Your task to perform on an android device: Open Reddit.com Image 0: 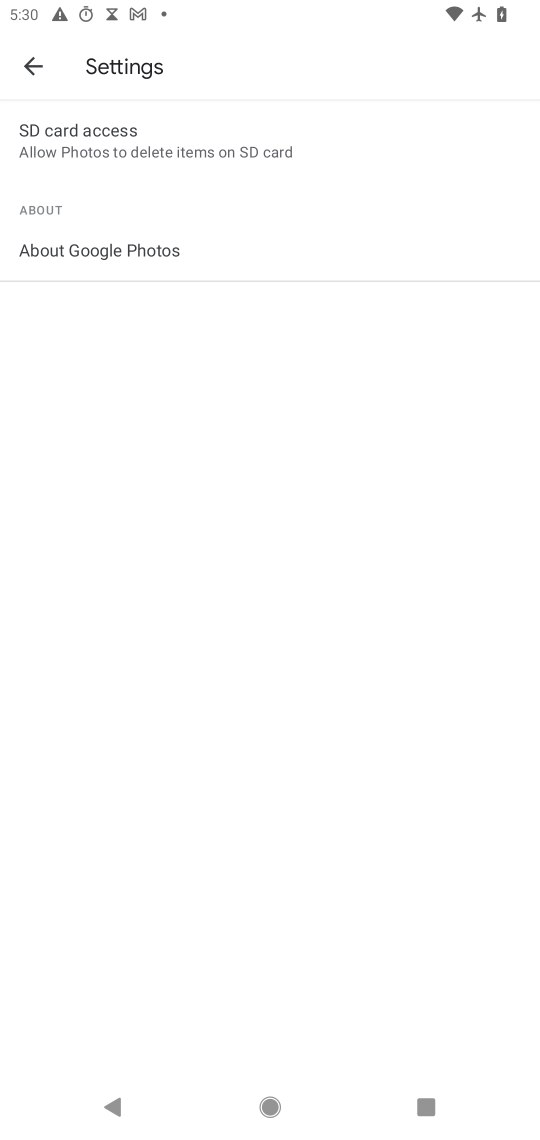
Step 0: press home button
Your task to perform on an android device: Open Reddit.com Image 1: 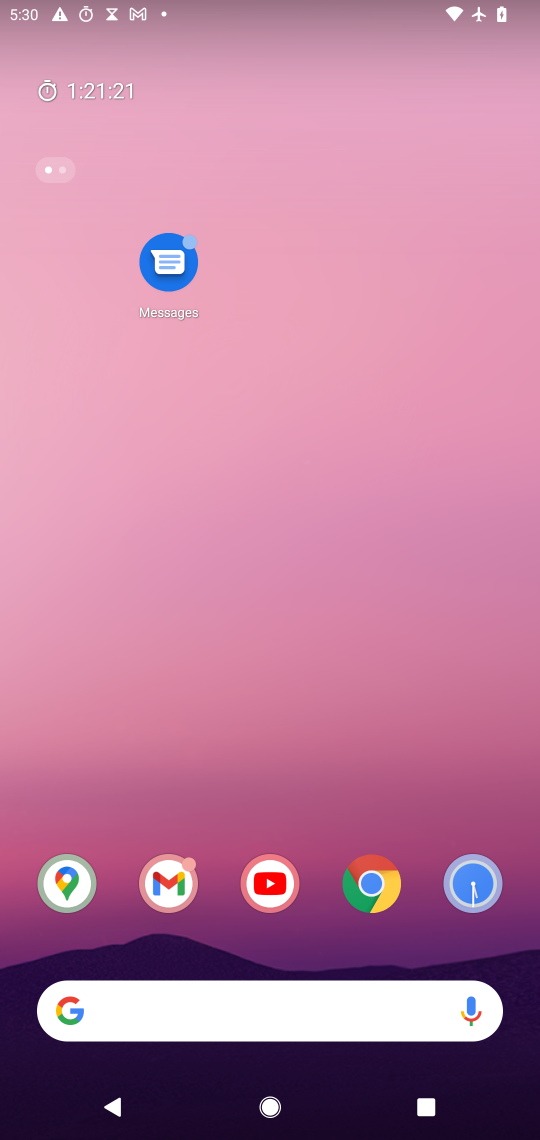
Step 1: drag from (314, 718) to (314, 98)
Your task to perform on an android device: Open Reddit.com Image 2: 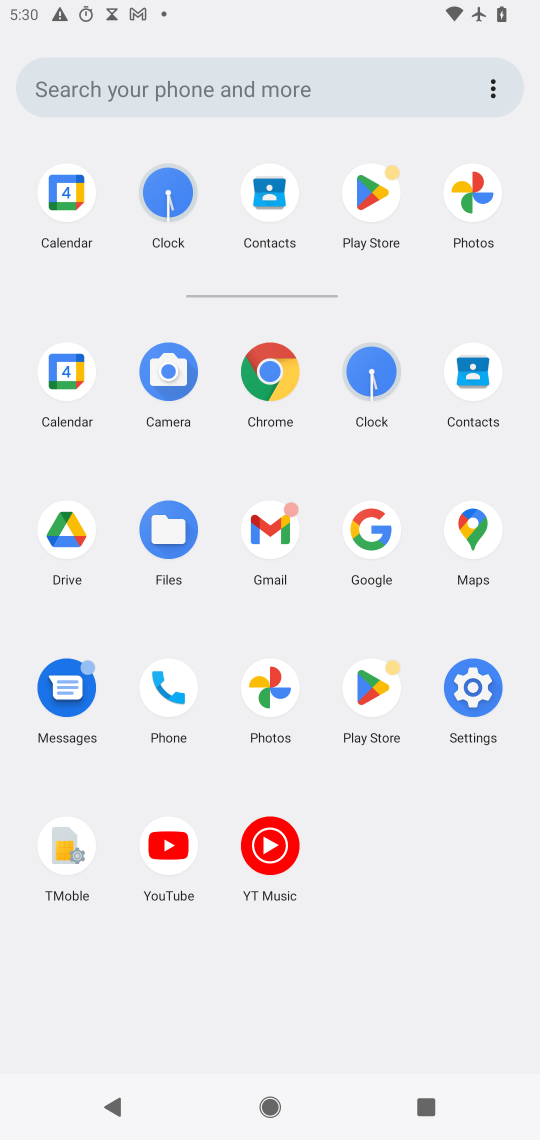
Step 2: click (270, 377)
Your task to perform on an android device: Open Reddit.com Image 3: 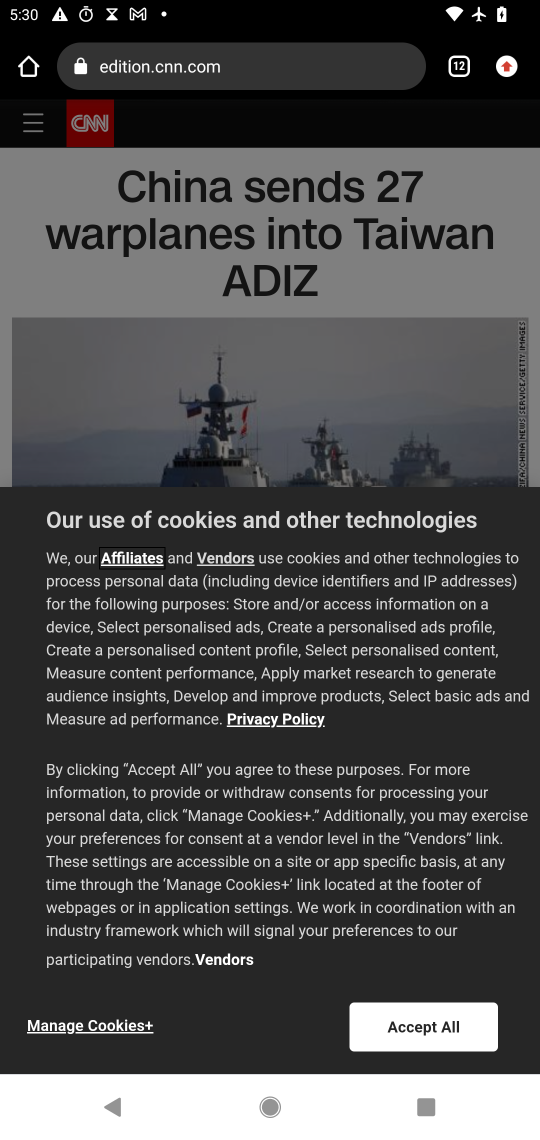
Step 3: click (510, 68)
Your task to perform on an android device: Open Reddit.com Image 4: 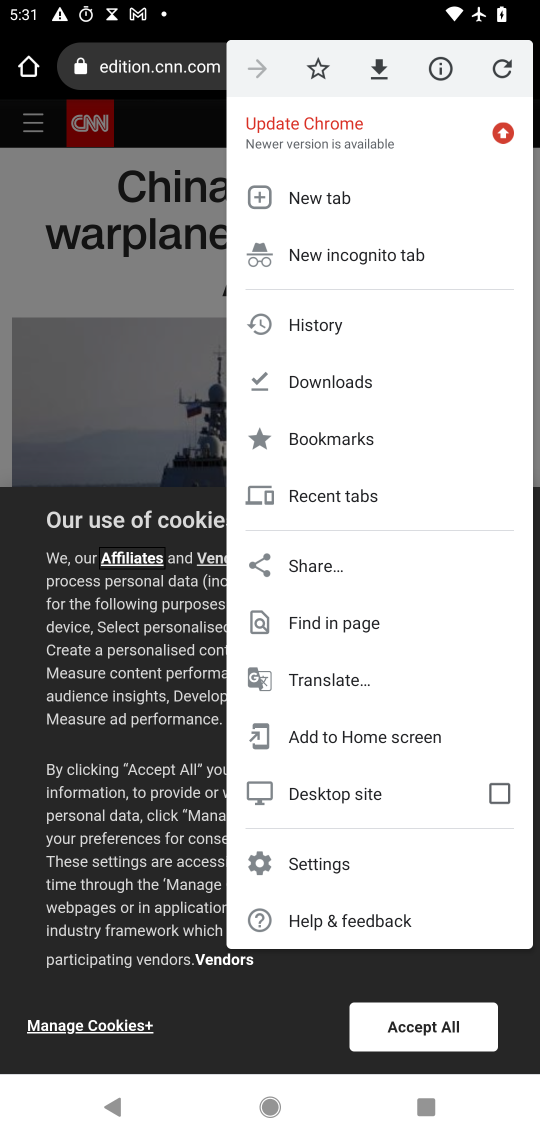
Step 4: click (313, 192)
Your task to perform on an android device: Open Reddit.com Image 5: 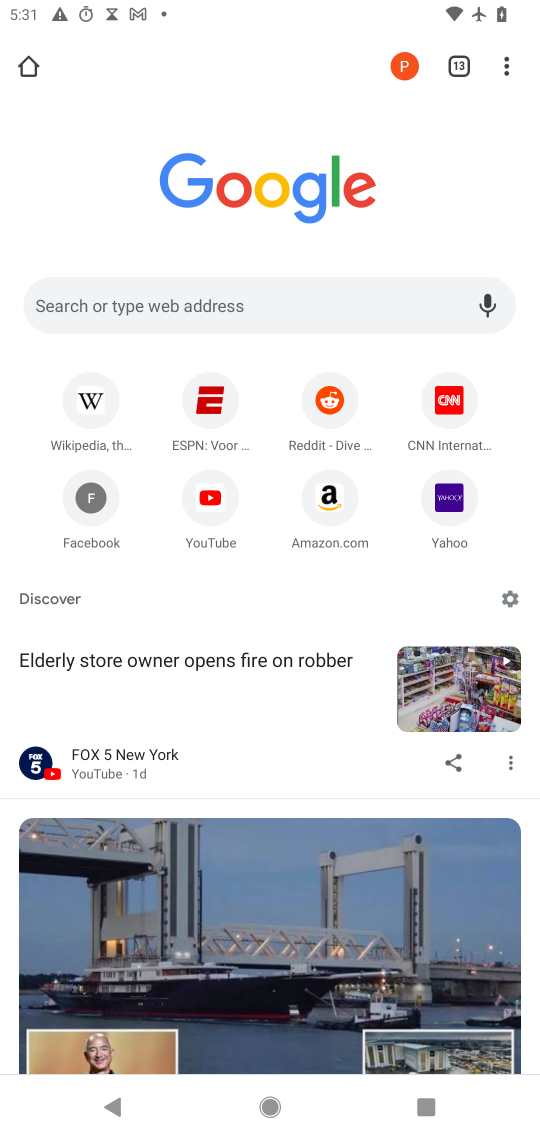
Step 5: click (306, 296)
Your task to perform on an android device: Open Reddit.com Image 6: 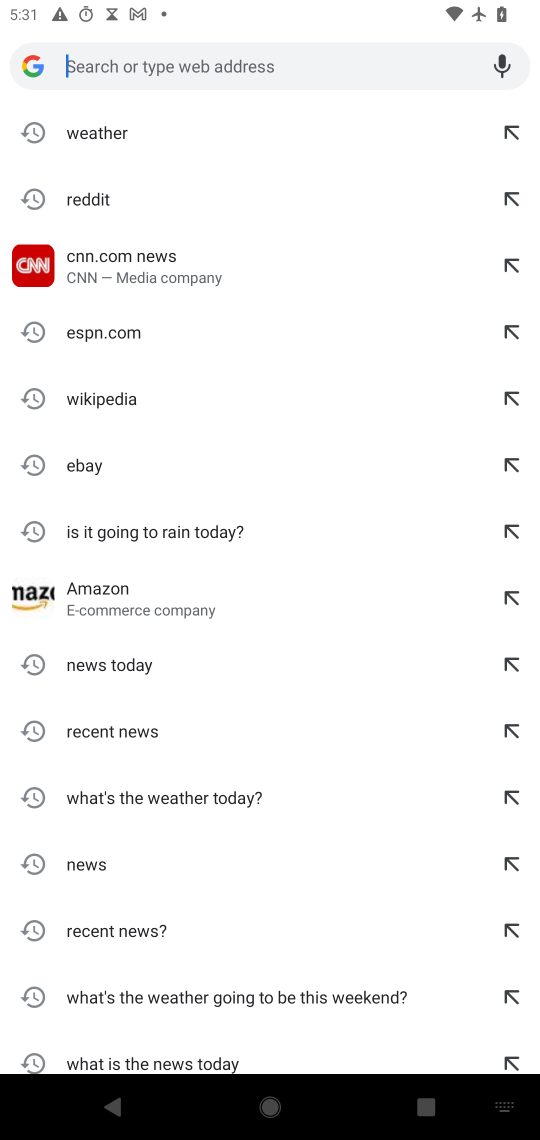
Step 6: click (84, 187)
Your task to perform on an android device: Open Reddit.com Image 7: 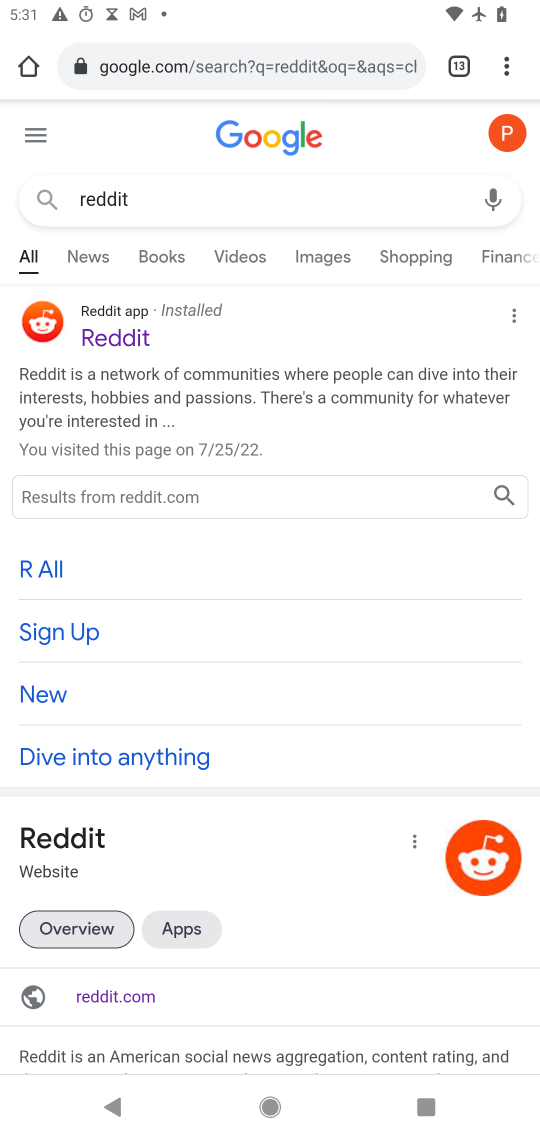
Step 7: click (116, 336)
Your task to perform on an android device: Open Reddit.com Image 8: 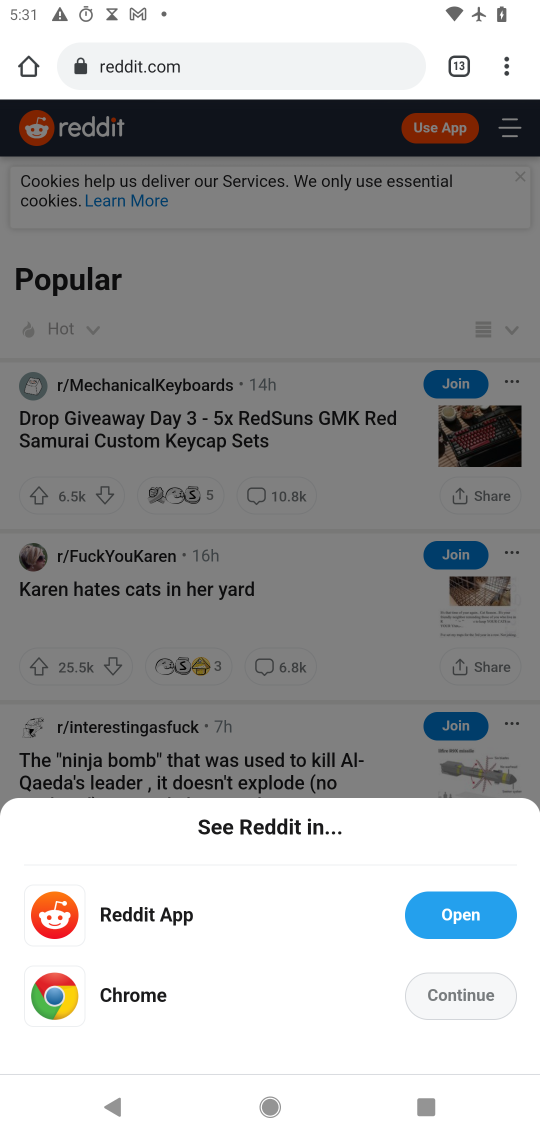
Step 8: task complete